Your task to perform on an android device: Turn off the flashlight Image 0: 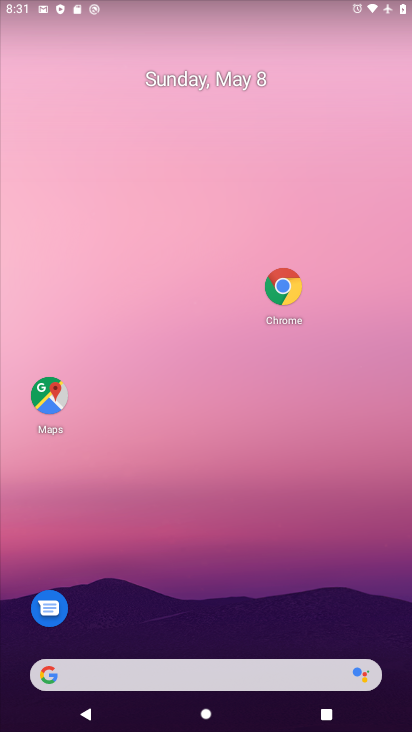
Step 0: drag from (254, 8) to (206, 359)
Your task to perform on an android device: Turn off the flashlight Image 1: 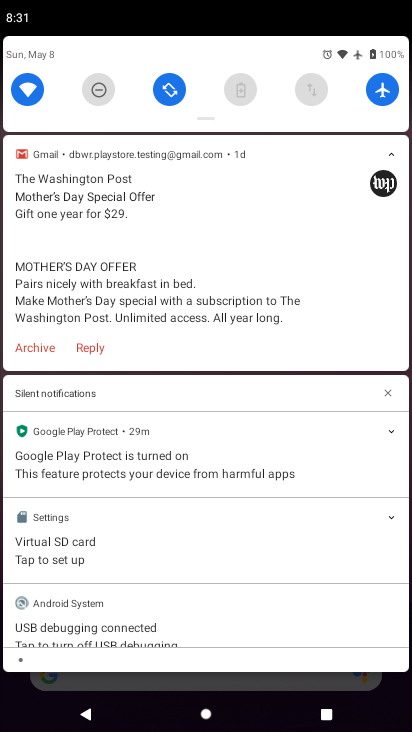
Step 1: task complete